Your task to perform on an android device: visit the assistant section in the google photos Image 0: 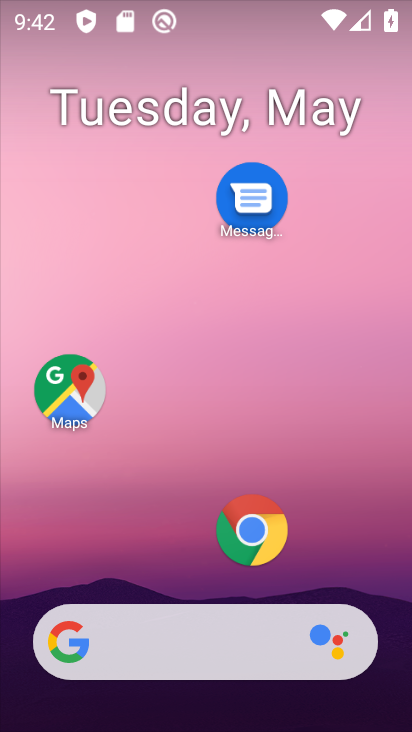
Step 0: drag from (200, 585) to (170, 208)
Your task to perform on an android device: visit the assistant section in the google photos Image 1: 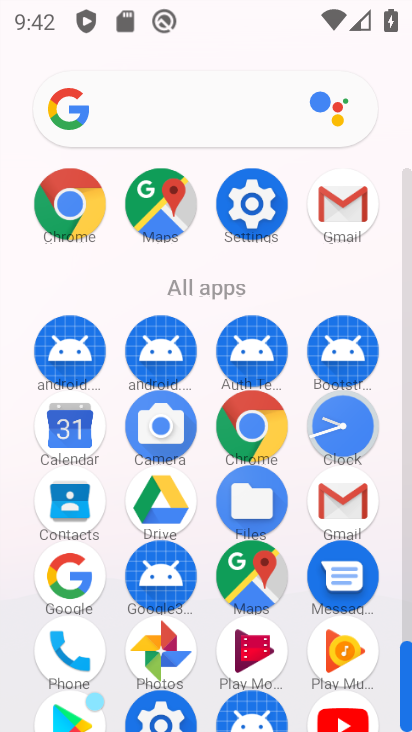
Step 1: click (191, 666)
Your task to perform on an android device: visit the assistant section in the google photos Image 2: 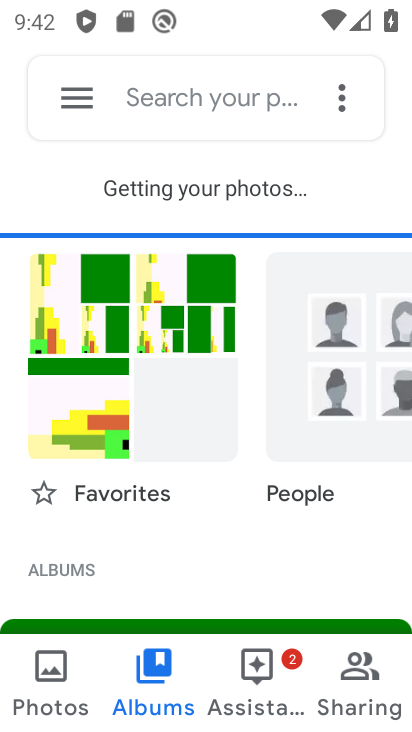
Step 2: click (241, 671)
Your task to perform on an android device: visit the assistant section in the google photos Image 3: 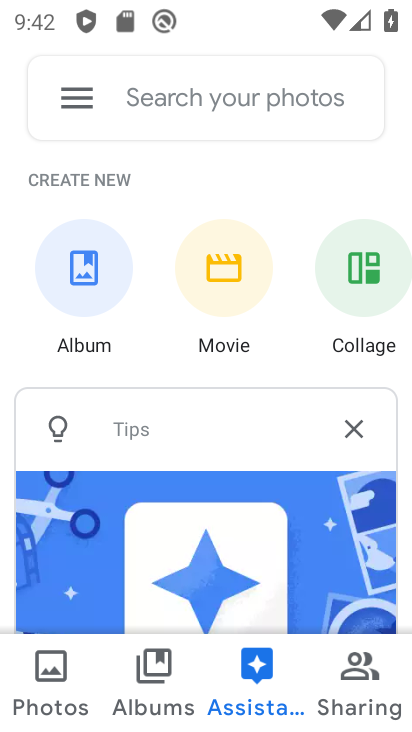
Step 3: task complete